Your task to perform on an android device: Search for "logitech g502" on target.com, select the first entry, and add it to the cart. Image 0: 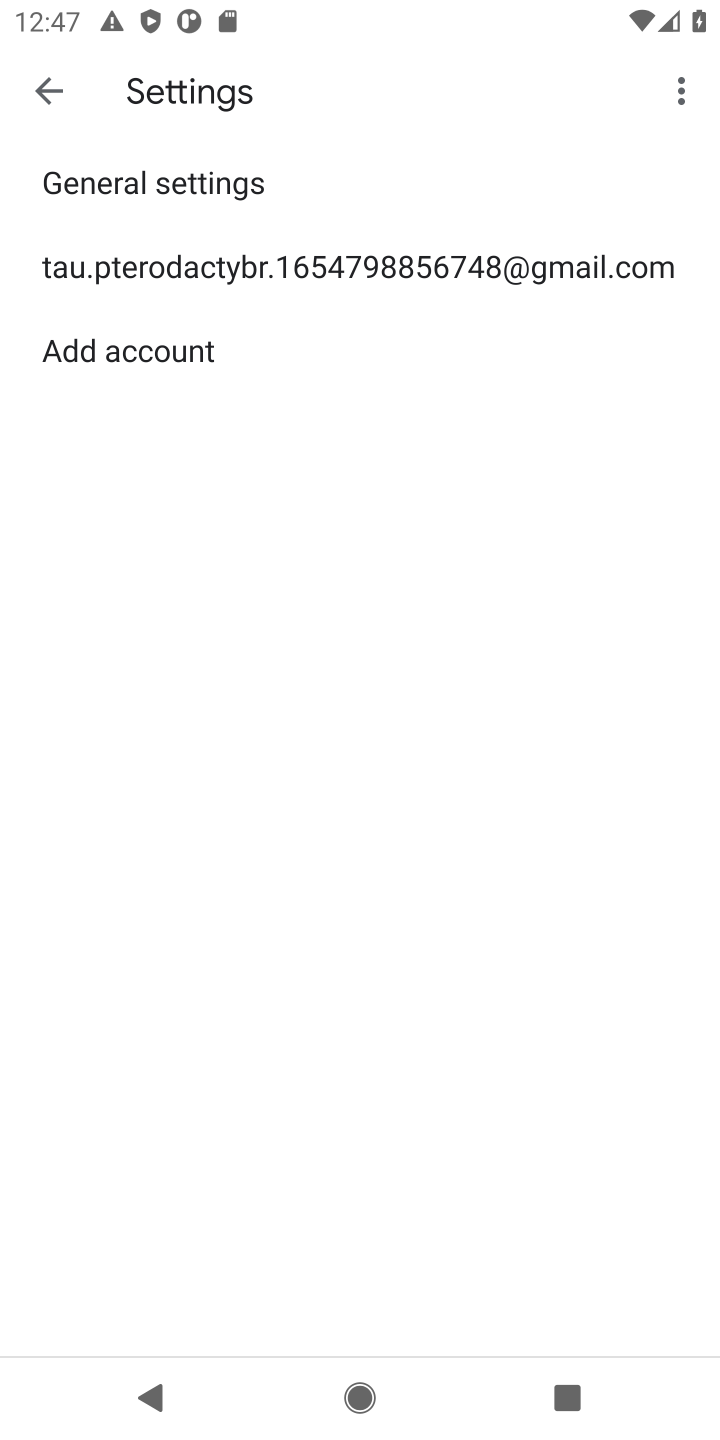
Step 0: press home button
Your task to perform on an android device: Search for "logitech g502" on target.com, select the first entry, and add it to the cart. Image 1: 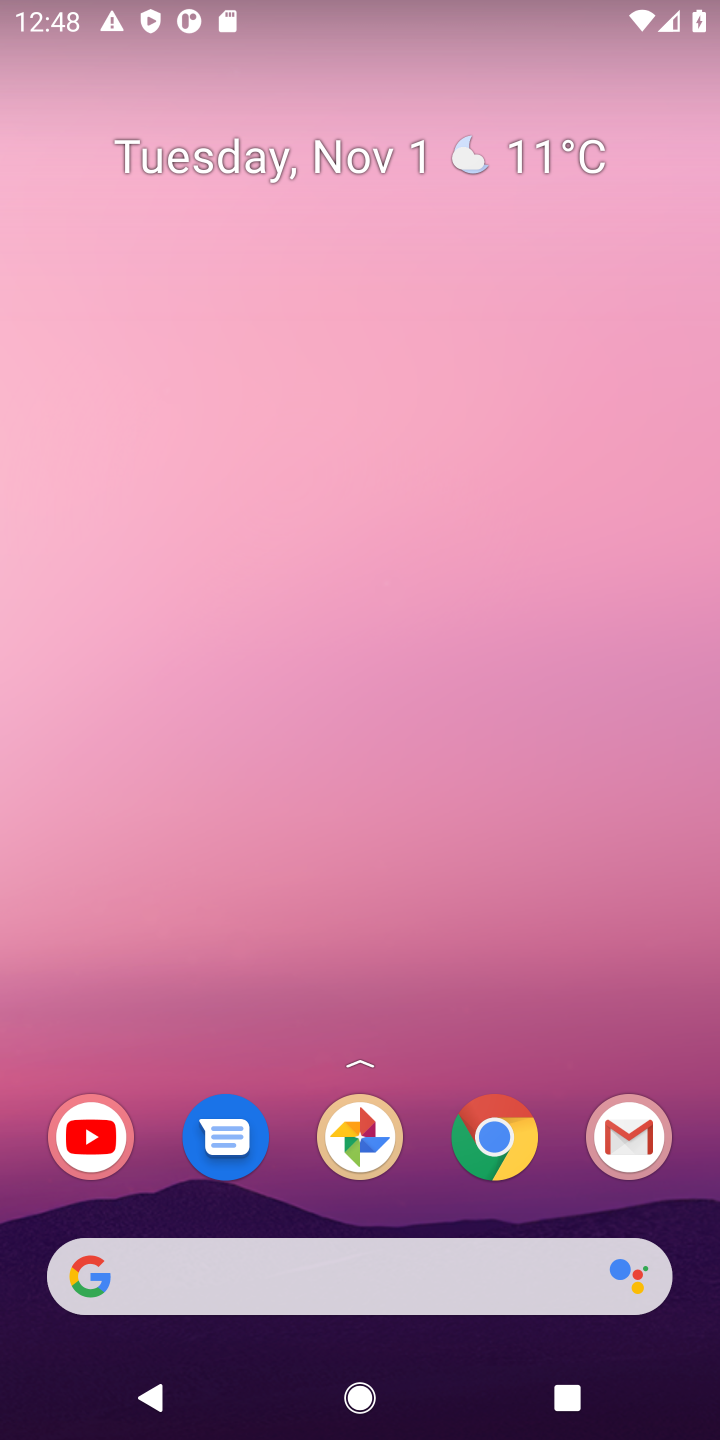
Step 1: click (494, 1122)
Your task to perform on an android device: Search for "logitech g502" on target.com, select the first entry, and add it to the cart. Image 2: 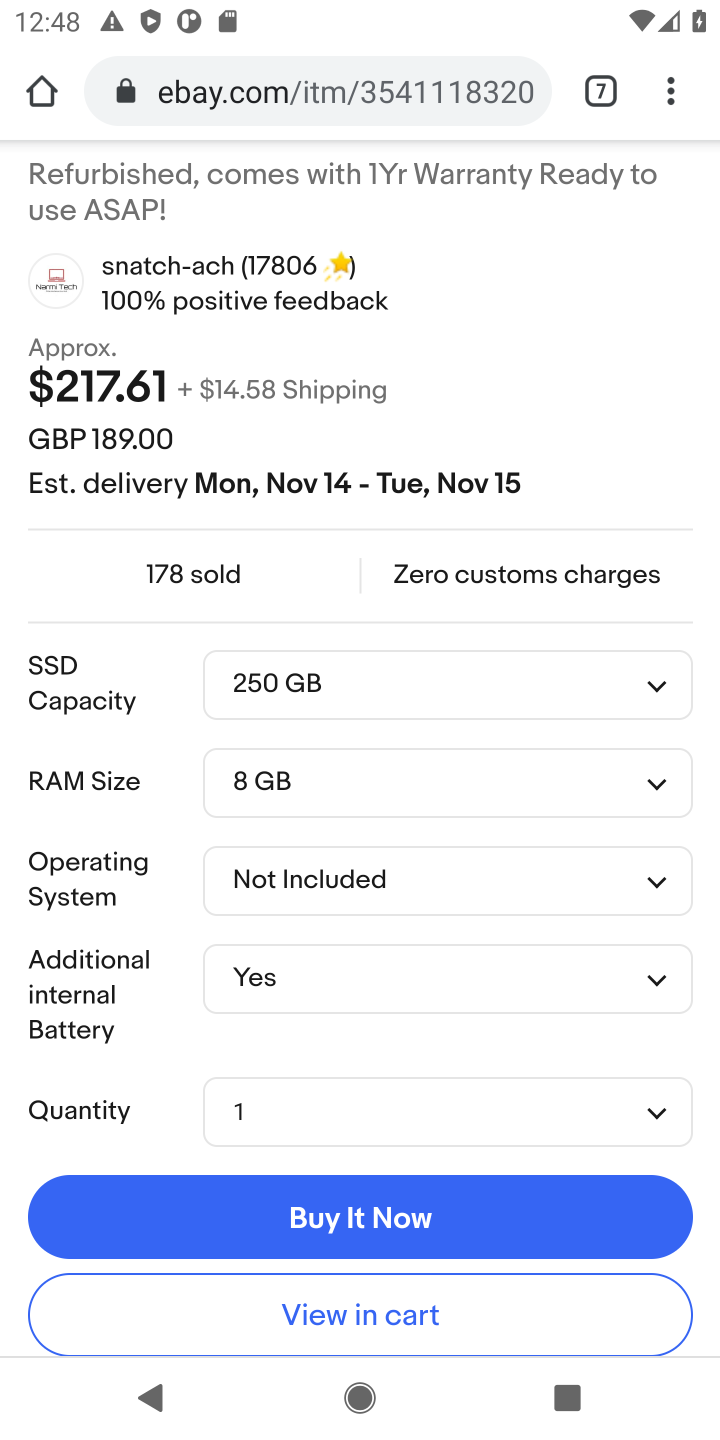
Step 2: click (606, 90)
Your task to perform on an android device: Search for "logitech g502" on target.com, select the first entry, and add it to the cart. Image 3: 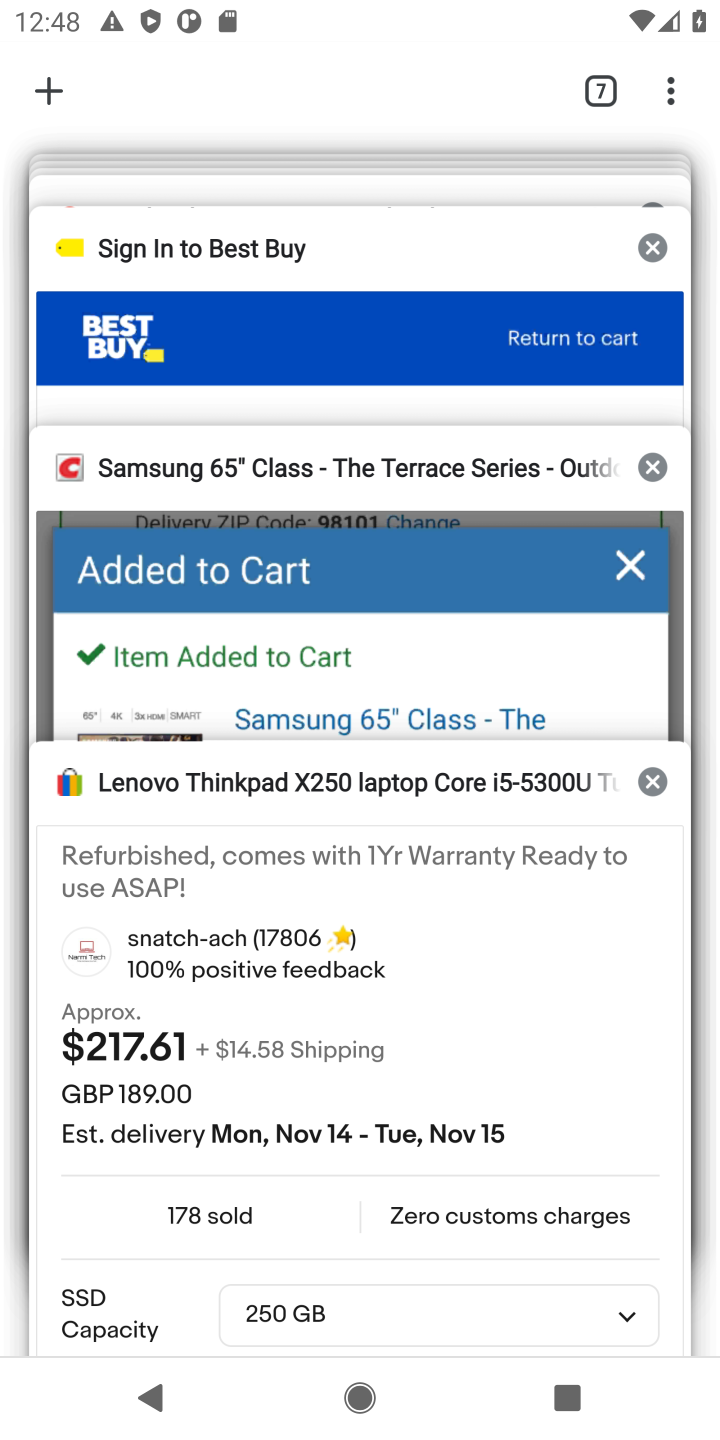
Step 3: drag from (282, 282) to (223, 713)
Your task to perform on an android device: Search for "logitech g502" on target.com, select the first entry, and add it to the cart. Image 4: 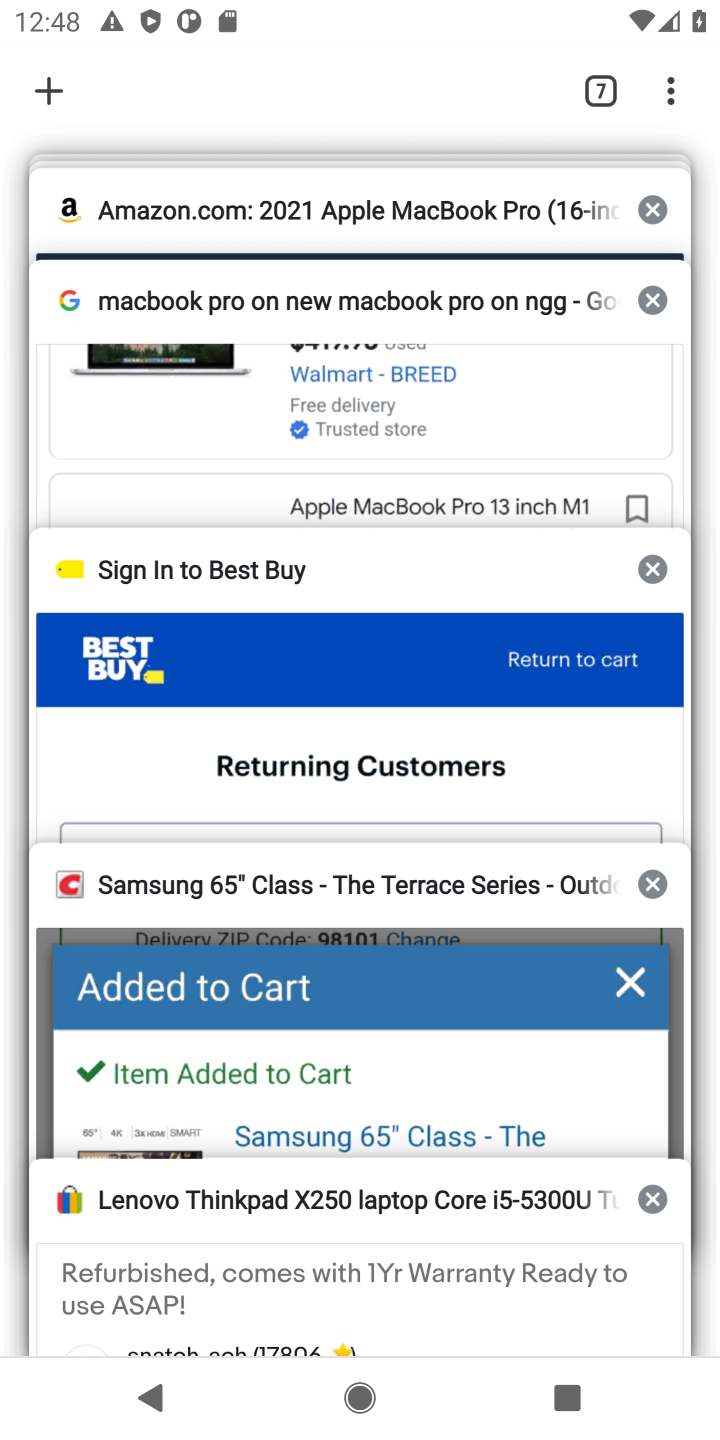
Step 4: drag from (339, 255) to (316, 584)
Your task to perform on an android device: Search for "logitech g502" on target.com, select the first entry, and add it to the cart. Image 5: 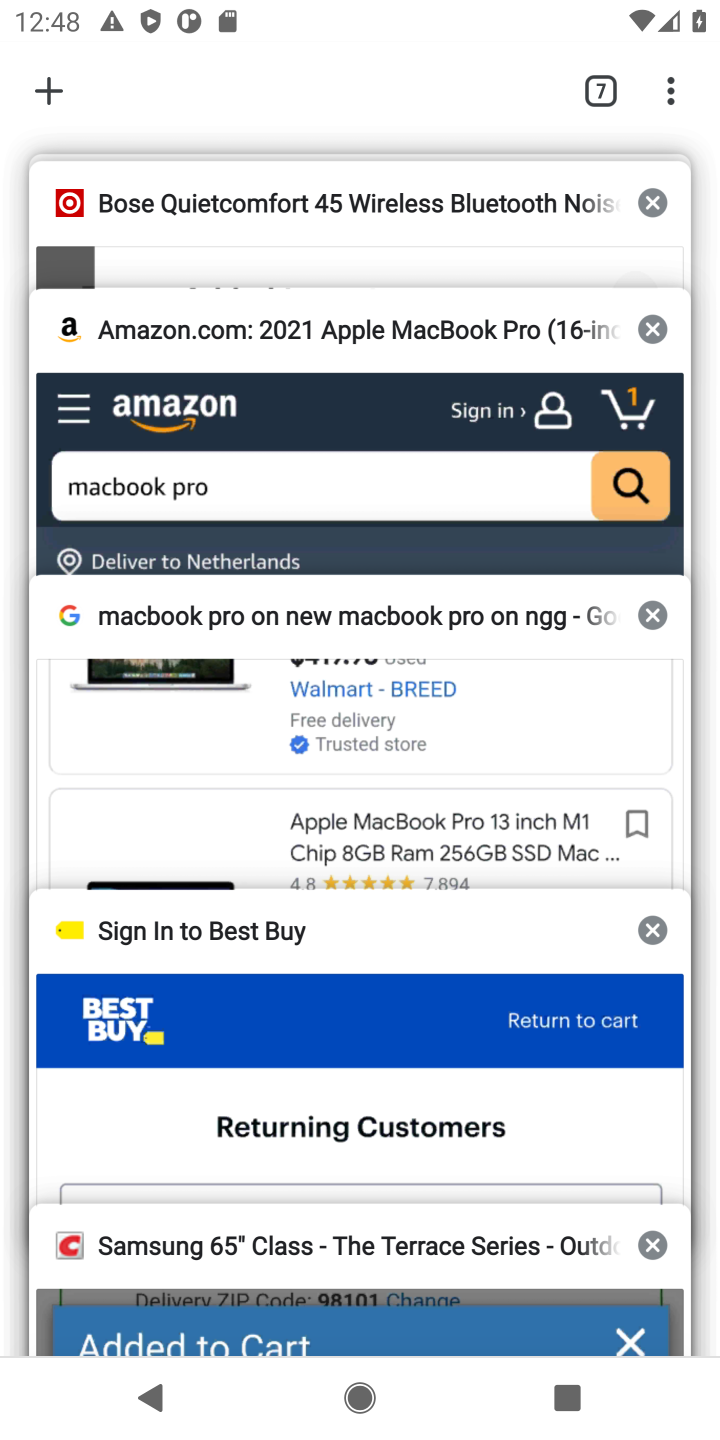
Step 5: click (370, 209)
Your task to perform on an android device: Search for "logitech g502" on target.com, select the first entry, and add it to the cart. Image 6: 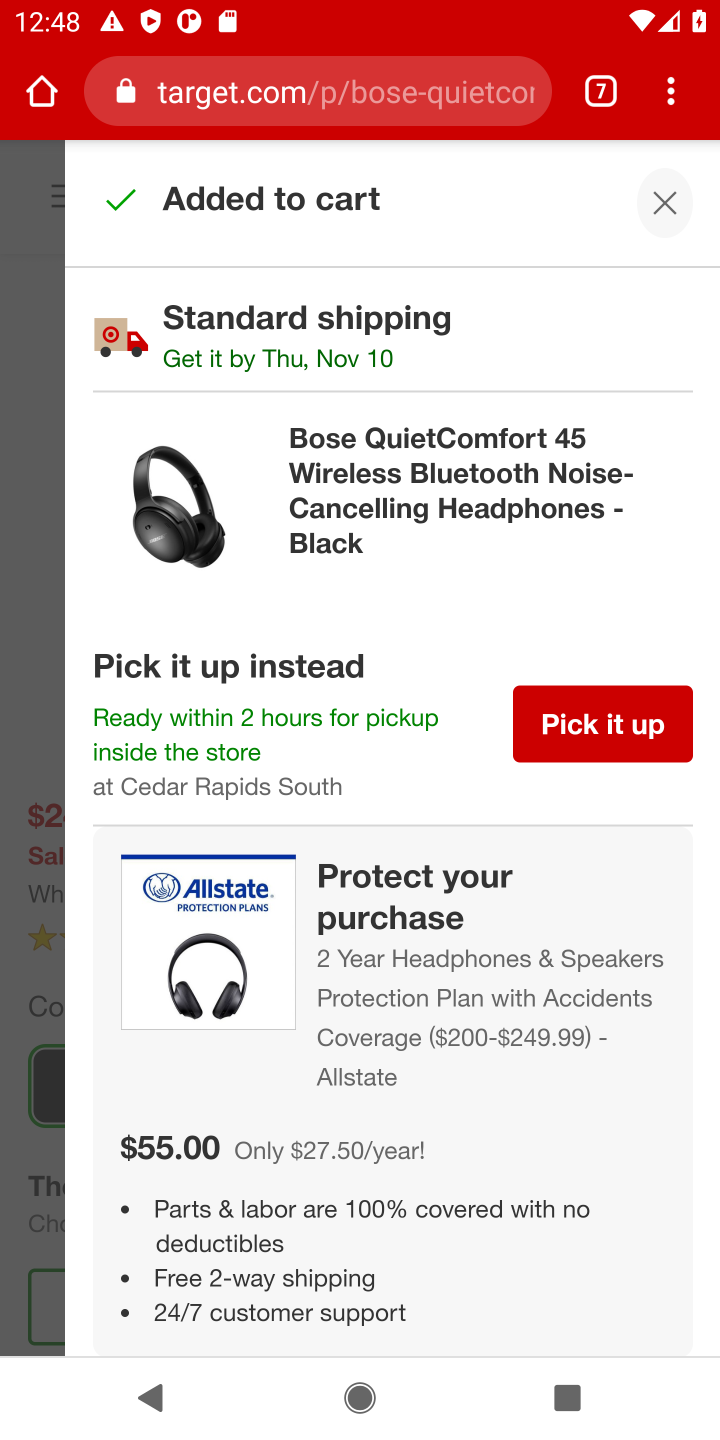
Step 6: click (662, 203)
Your task to perform on an android device: Search for "logitech g502" on target.com, select the first entry, and add it to the cart. Image 7: 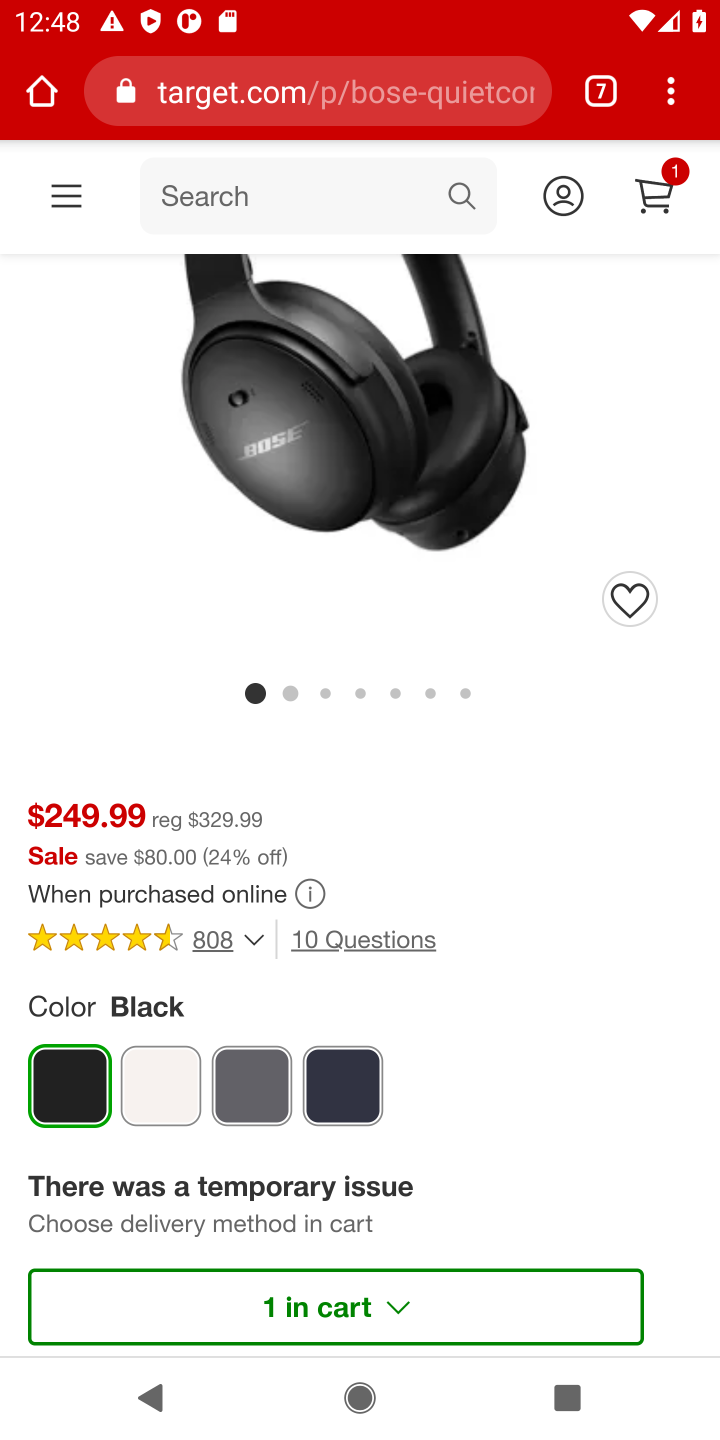
Step 7: click (392, 194)
Your task to perform on an android device: Search for "logitech g502" on target.com, select the first entry, and add it to the cart. Image 8: 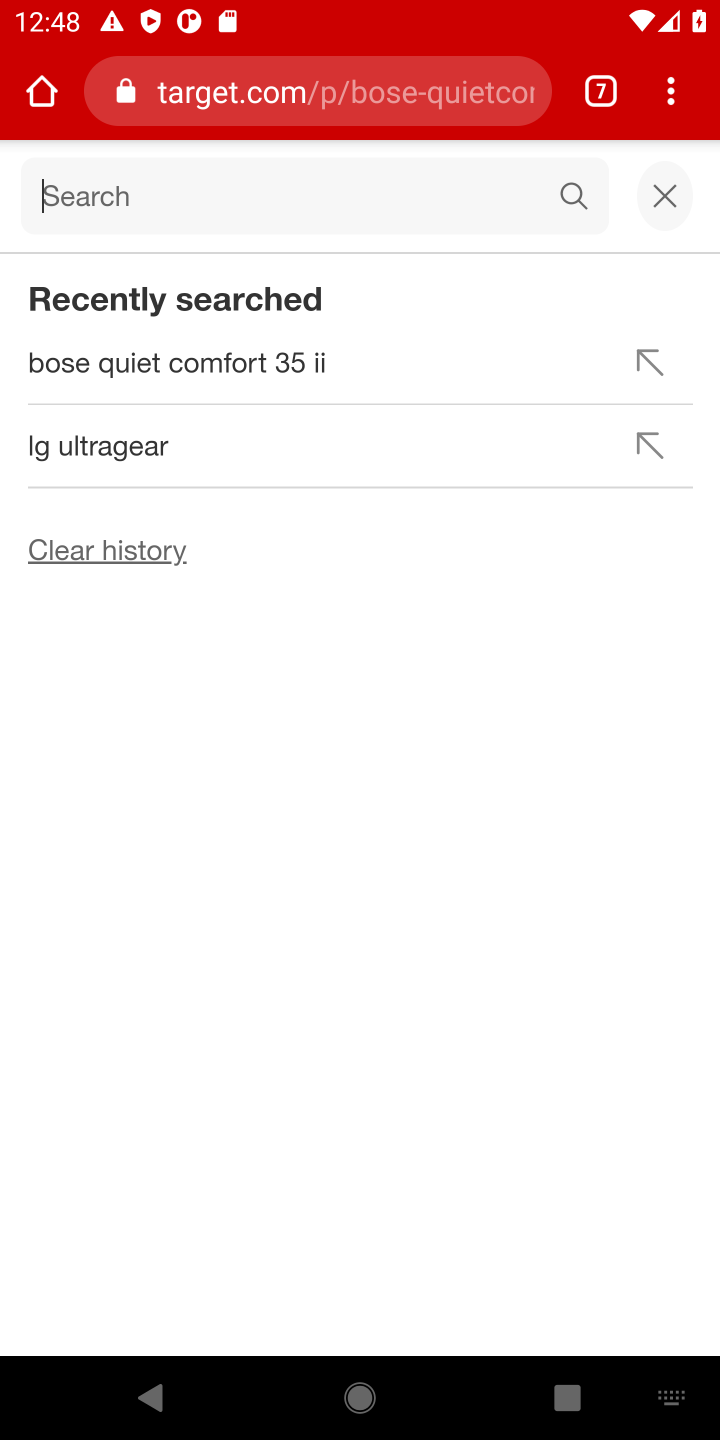
Step 8: type "logitech g502"
Your task to perform on an android device: Search for "logitech g502" on target.com, select the first entry, and add it to the cart. Image 9: 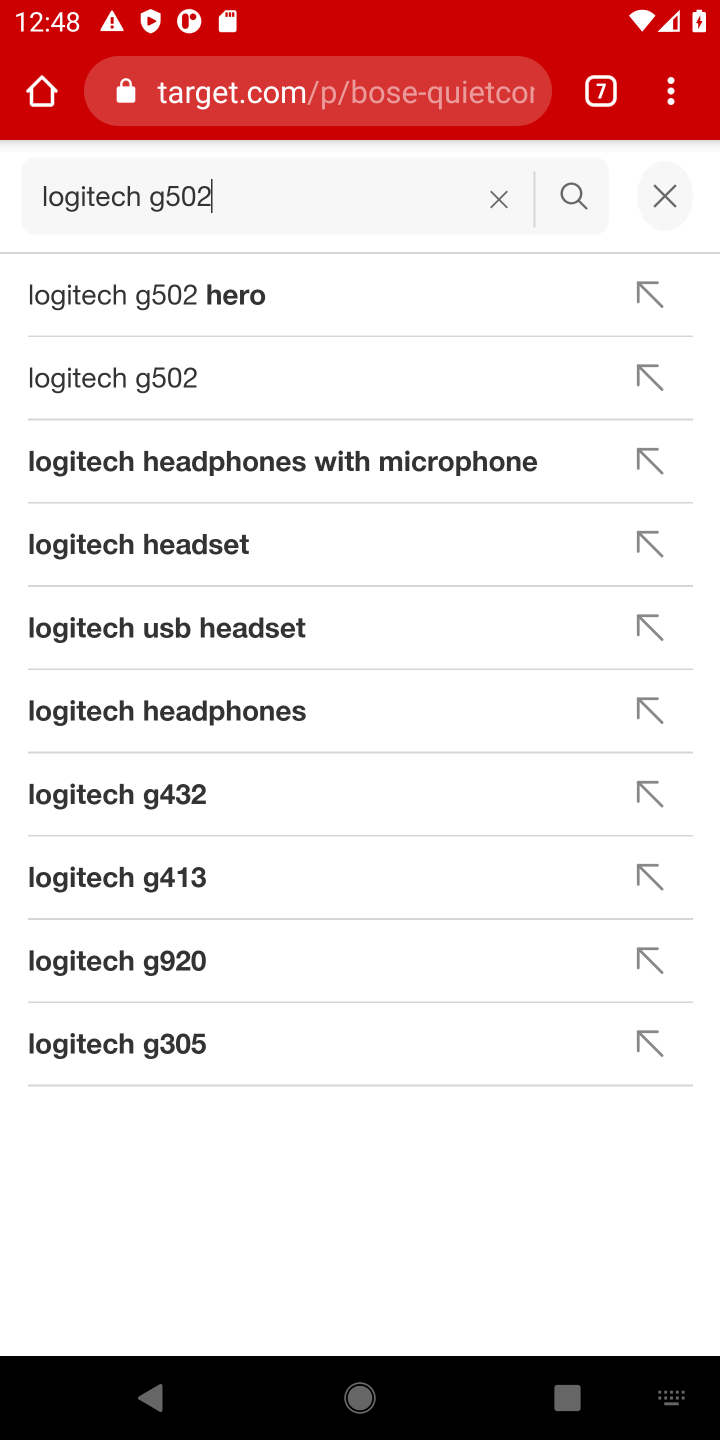
Step 9: click (127, 292)
Your task to perform on an android device: Search for "logitech g502" on target.com, select the first entry, and add it to the cart. Image 10: 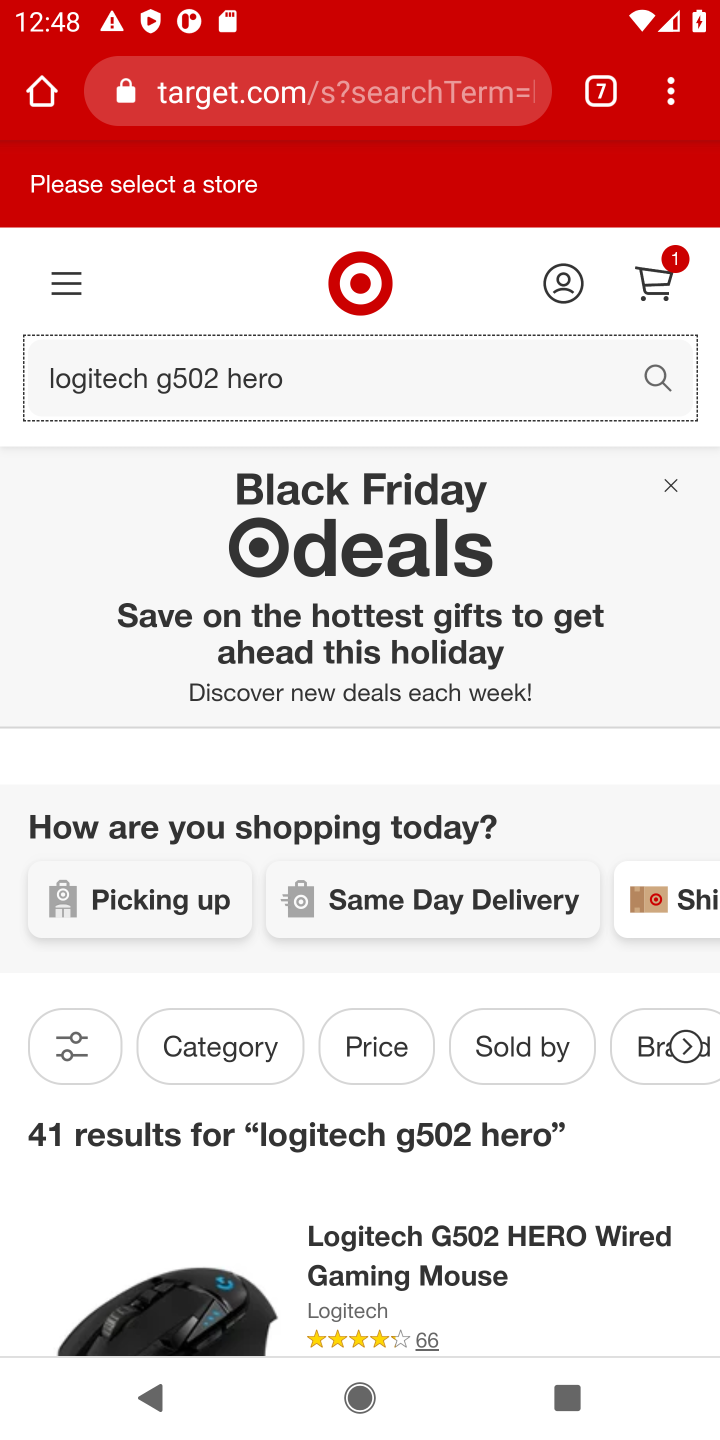
Step 10: drag from (277, 1177) to (485, 391)
Your task to perform on an android device: Search for "logitech g502" on target.com, select the first entry, and add it to the cart. Image 11: 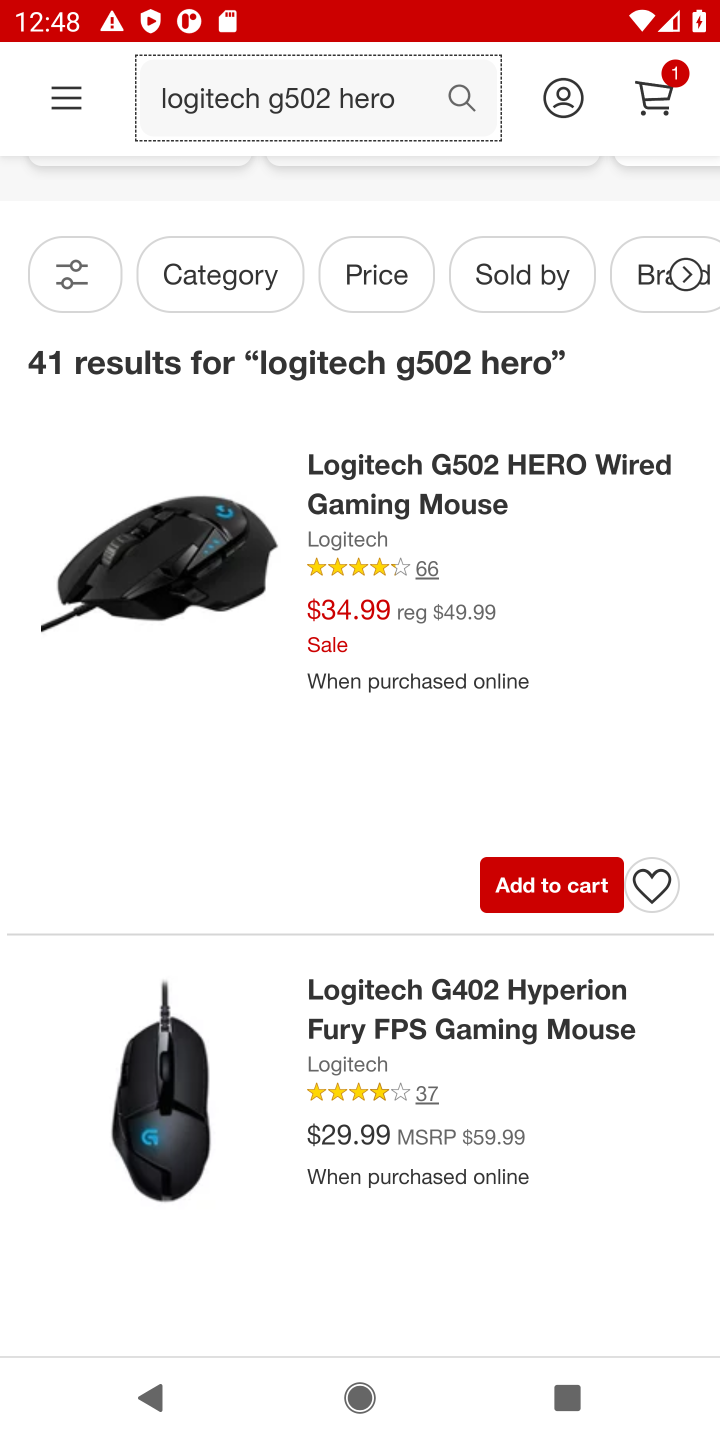
Step 11: click (526, 871)
Your task to perform on an android device: Search for "logitech g502" on target.com, select the first entry, and add it to the cart. Image 12: 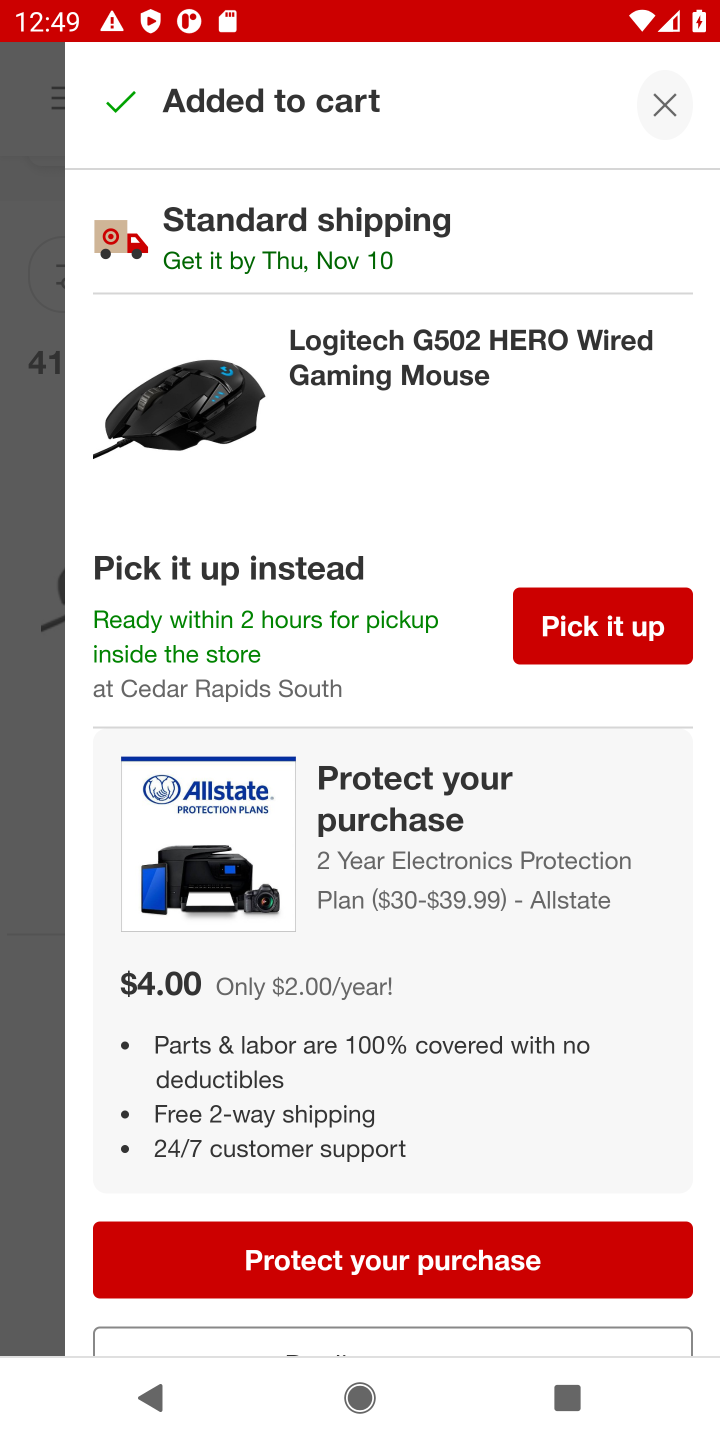
Step 12: task complete